Your task to perform on an android device: toggle priority inbox in the gmail app Image 0: 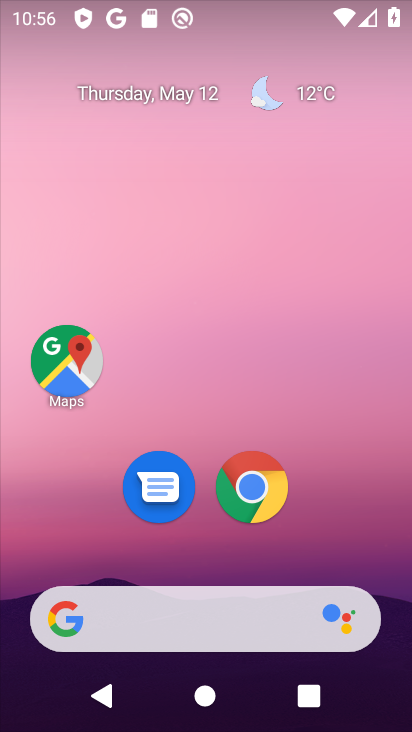
Step 0: drag from (371, 574) to (348, 16)
Your task to perform on an android device: toggle priority inbox in the gmail app Image 1: 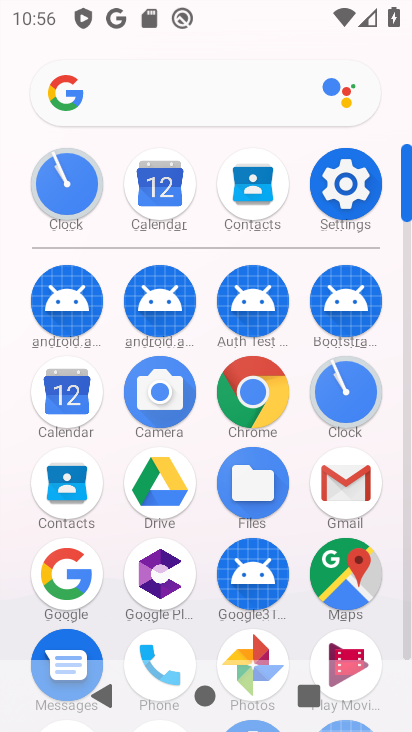
Step 1: click (337, 474)
Your task to perform on an android device: toggle priority inbox in the gmail app Image 2: 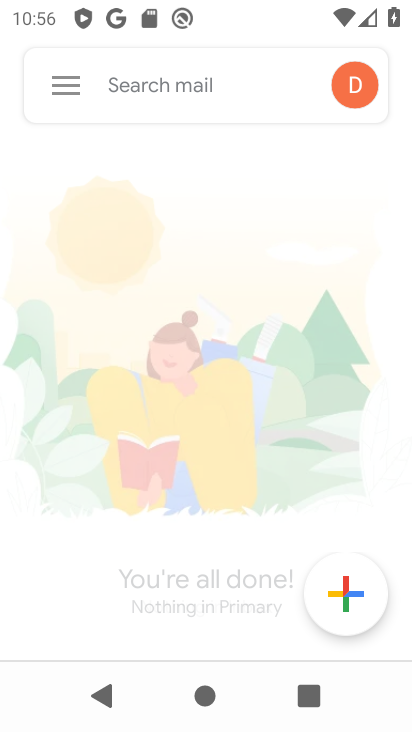
Step 2: click (63, 90)
Your task to perform on an android device: toggle priority inbox in the gmail app Image 3: 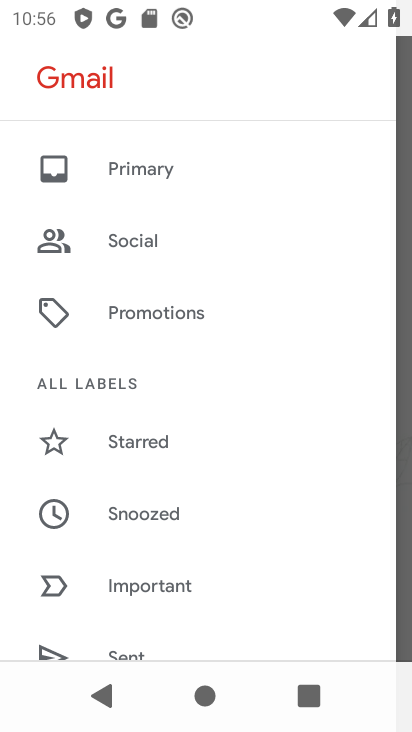
Step 3: drag from (223, 575) to (234, 12)
Your task to perform on an android device: toggle priority inbox in the gmail app Image 4: 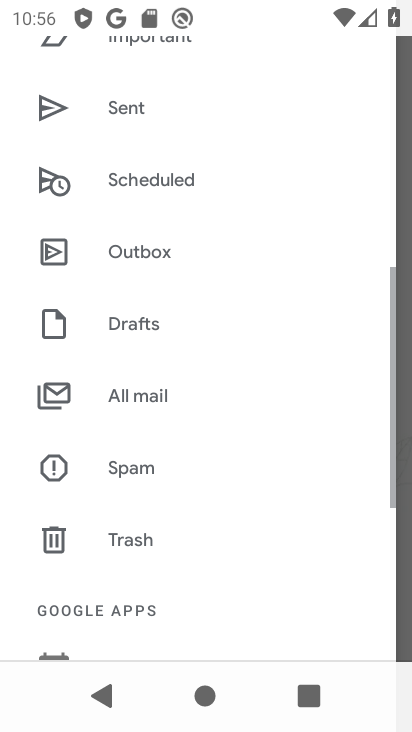
Step 4: drag from (189, 485) to (181, 16)
Your task to perform on an android device: toggle priority inbox in the gmail app Image 5: 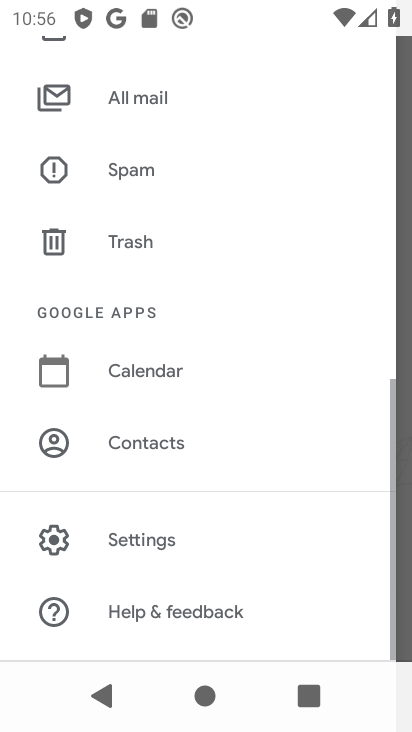
Step 5: click (142, 544)
Your task to perform on an android device: toggle priority inbox in the gmail app Image 6: 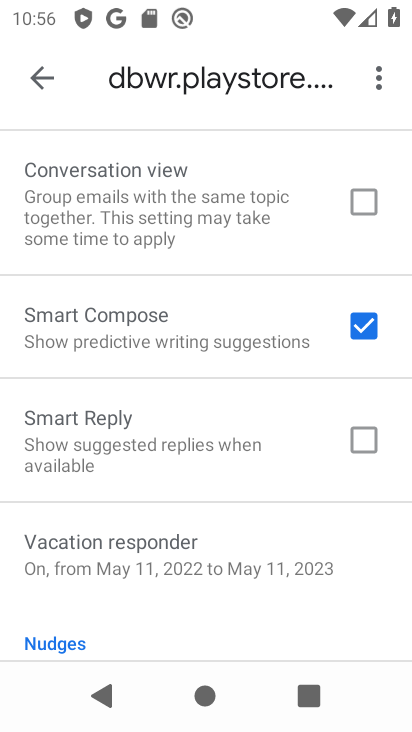
Step 6: drag from (83, 223) to (108, 727)
Your task to perform on an android device: toggle priority inbox in the gmail app Image 7: 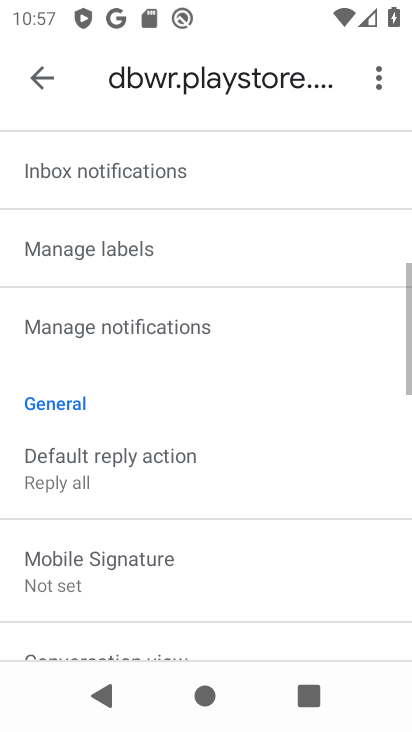
Step 7: drag from (149, 278) to (159, 622)
Your task to perform on an android device: toggle priority inbox in the gmail app Image 8: 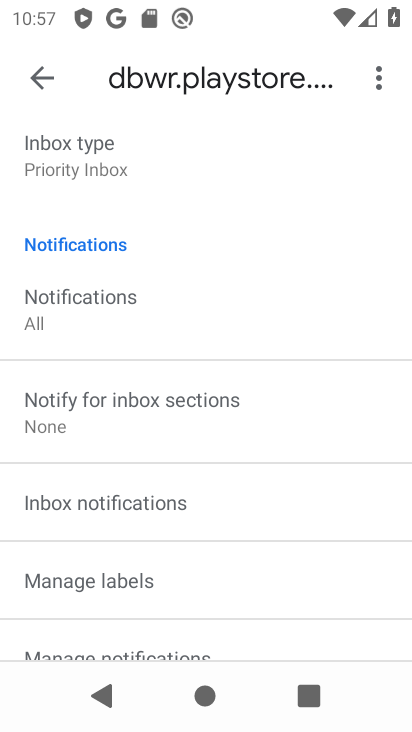
Step 8: click (71, 178)
Your task to perform on an android device: toggle priority inbox in the gmail app Image 9: 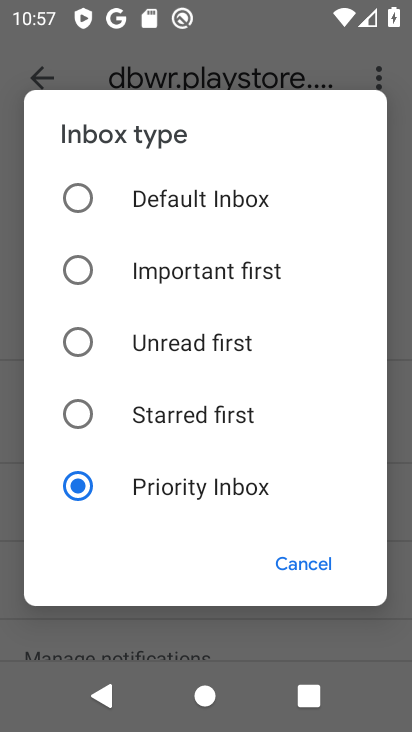
Step 9: click (73, 202)
Your task to perform on an android device: toggle priority inbox in the gmail app Image 10: 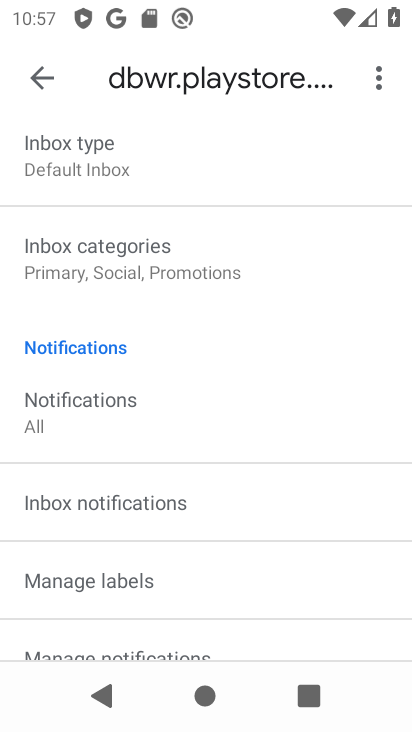
Step 10: task complete